Your task to perform on an android device: change the clock display to show seconds Image 0: 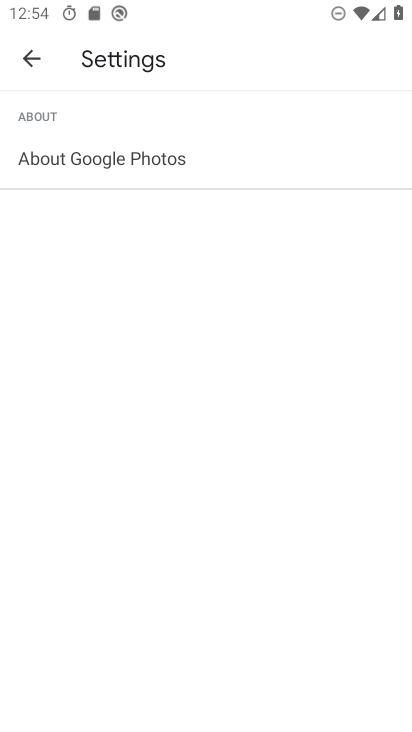
Step 0: press home button
Your task to perform on an android device: change the clock display to show seconds Image 1: 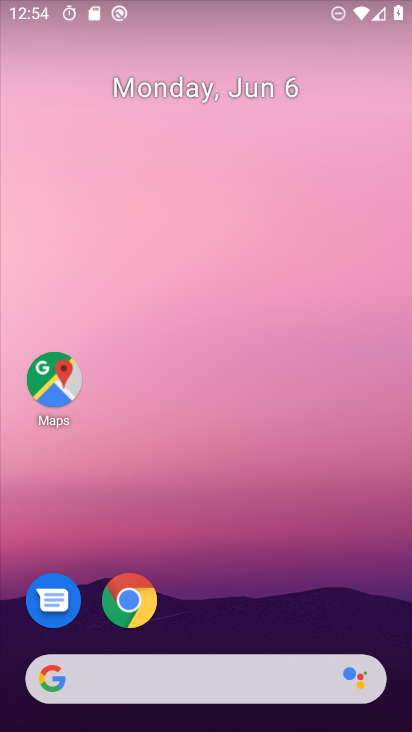
Step 1: drag from (216, 608) to (215, 216)
Your task to perform on an android device: change the clock display to show seconds Image 2: 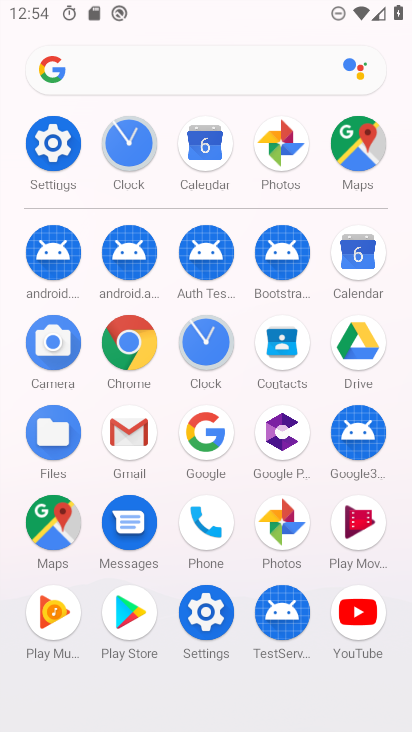
Step 2: click (217, 344)
Your task to perform on an android device: change the clock display to show seconds Image 3: 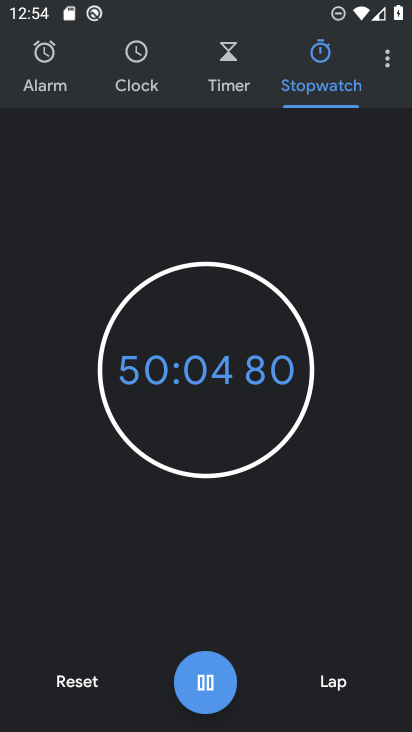
Step 3: click (383, 61)
Your task to perform on an android device: change the clock display to show seconds Image 4: 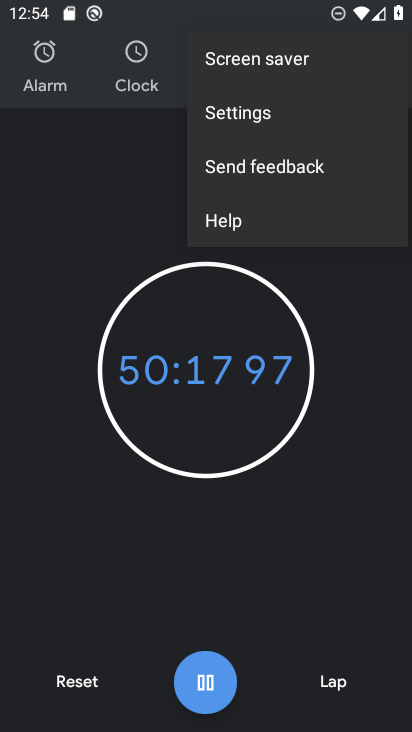
Step 4: click (265, 110)
Your task to perform on an android device: change the clock display to show seconds Image 5: 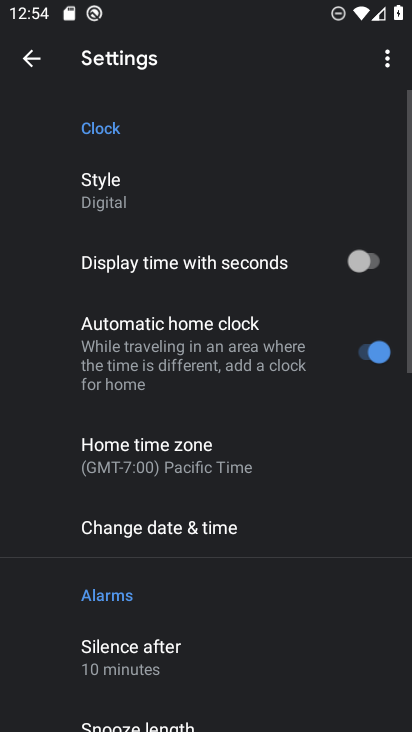
Step 5: click (366, 263)
Your task to perform on an android device: change the clock display to show seconds Image 6: 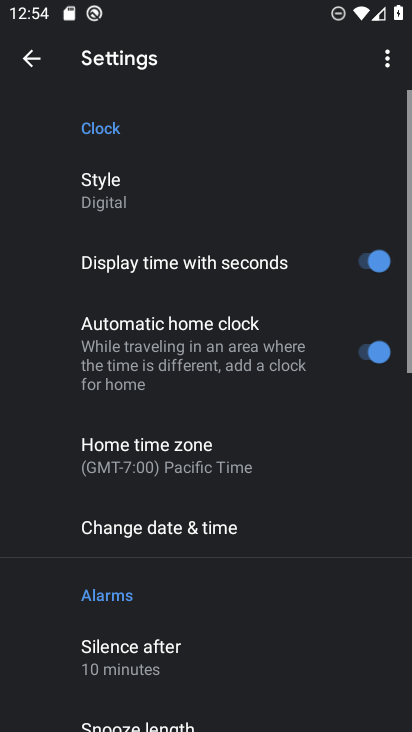
Step 6: task complete